Your task to perform on an android device: clear history in the chrome app Image 0: 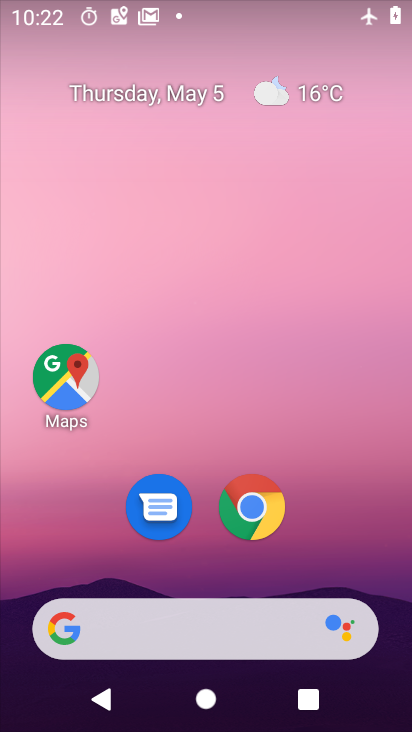
Step 0: click (247, 504)
Your task to perform on an android device: clear history in the chrome app Image 1: 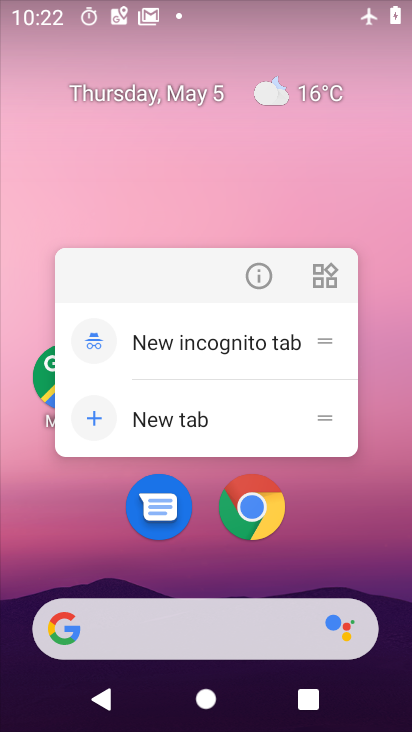
Step 1: click (260, 279)
Your task to perform on an android device: clear history in the chrome app Image 2: 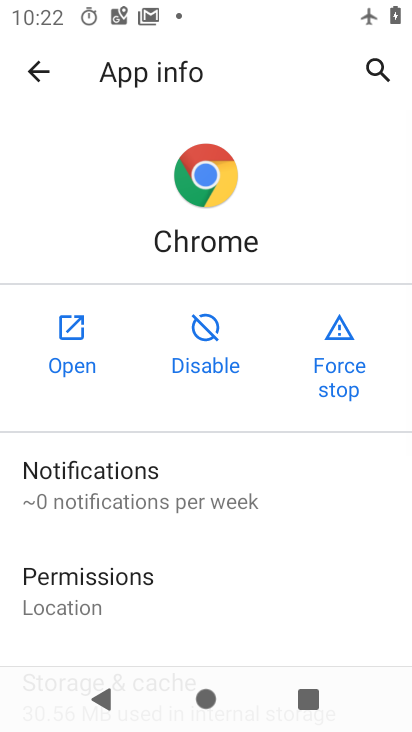
Step 2: click (59, 335)
Your task to perform on an android device: clear history in the chrome app Image 3: 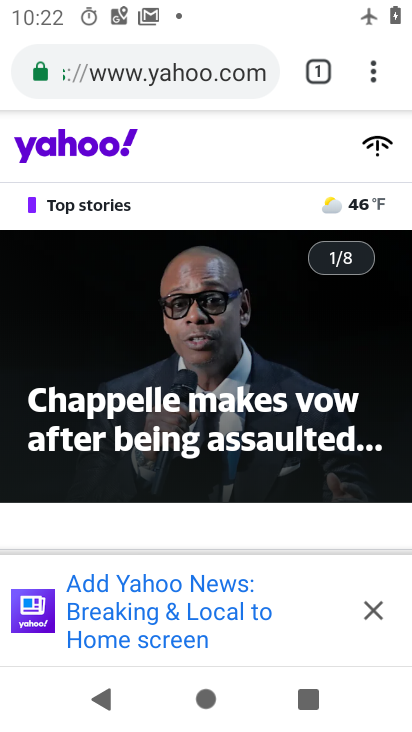
Step 3: click (372, 77)
Your task to perform on an android device: clear history in the chrome app Image 4: 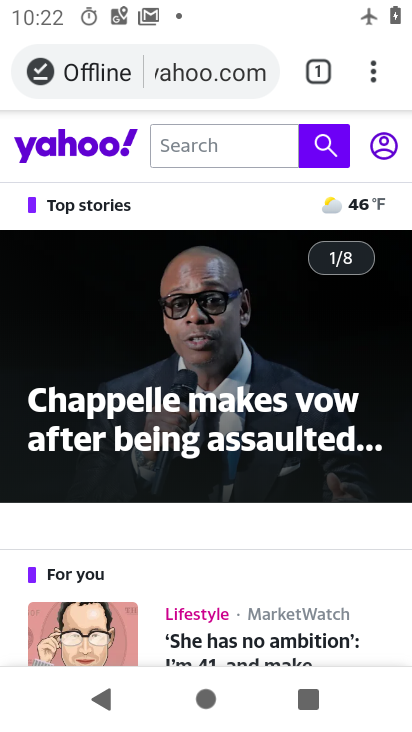
Step 4: click (374, 70)
Your task to perform on an android device: clear history in the chrome app Image 5: 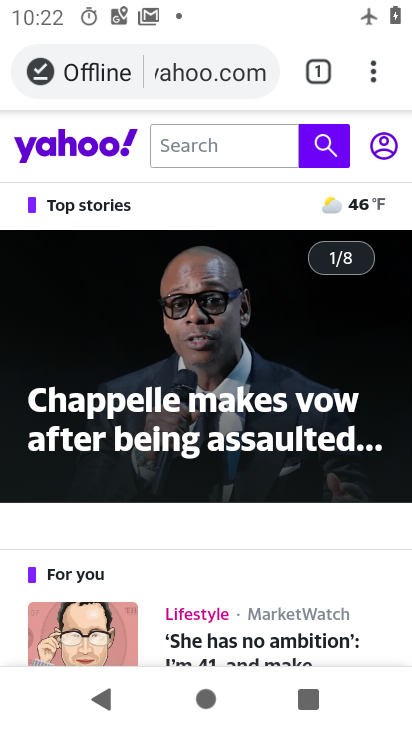
Step 5: click (373, 72)
Your task to perform on an android device: clear history in the chrome app Image 6: 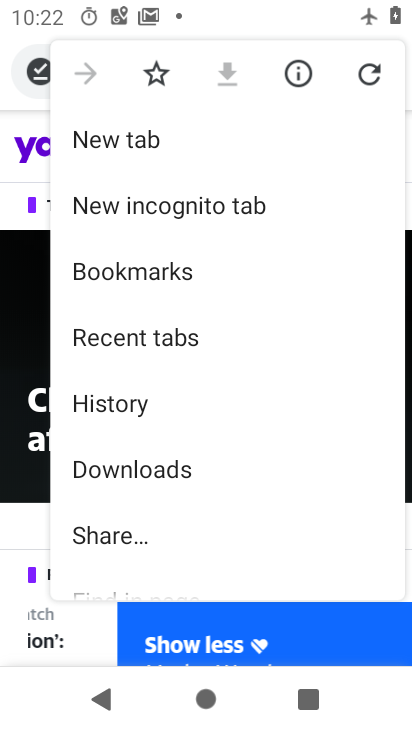
Step 6: click (132, 403)
Your task to perform on an android device: clear history in the chrome app Image 7: 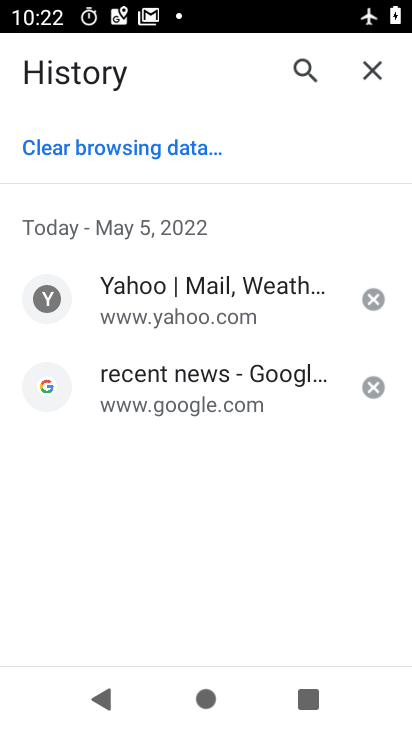
Step 7: click (168, 154)
Your task to perform on an android device: clear history in the chrome app Image 8: 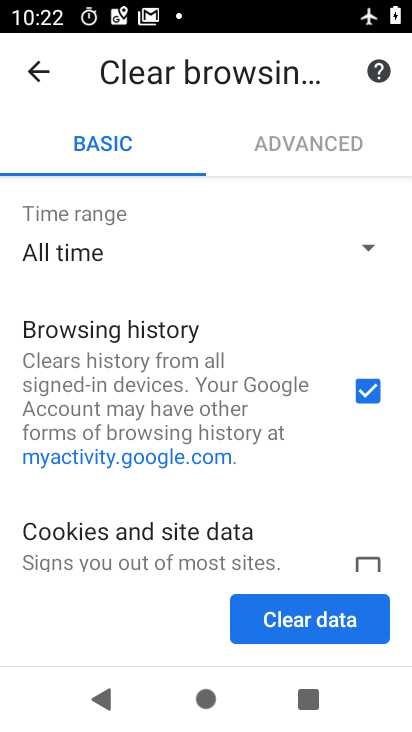
Step 8: click (301, 626)
Your task to perform on an android device: clear history in the chrome app Image 9: 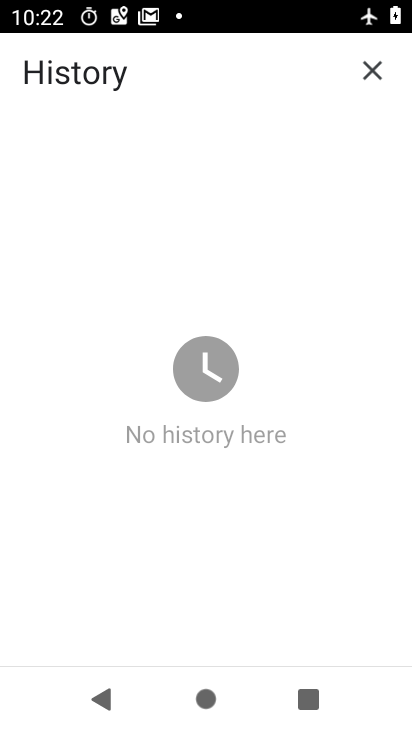
Step 9: task complete